Your task to perform on an android device: change keyboard looks Image 0: 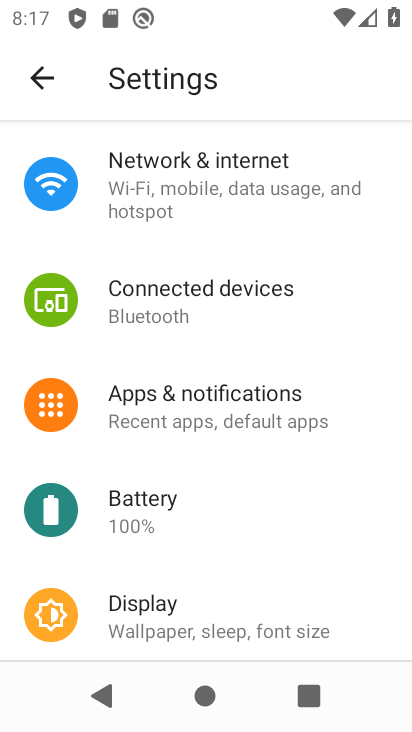
Step 0: drag from (380, 553) to (373, 414)
Your task to perform on an android device: change keyboard looks Image 1: 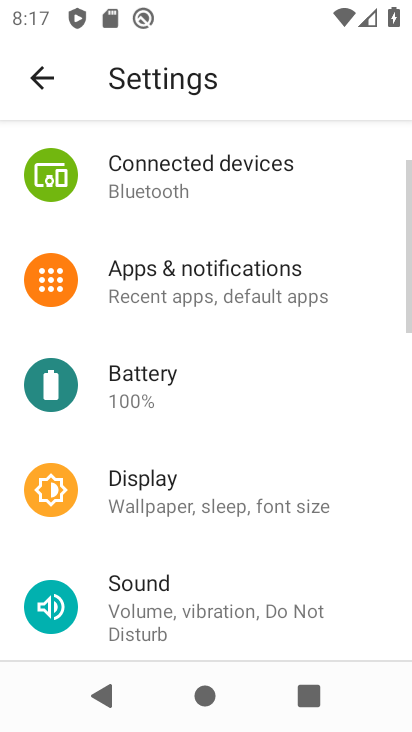
Step 1: drag from (359, 580) to (376, 444)
Your task to perform on an android device: change keyboard looks Image 2: 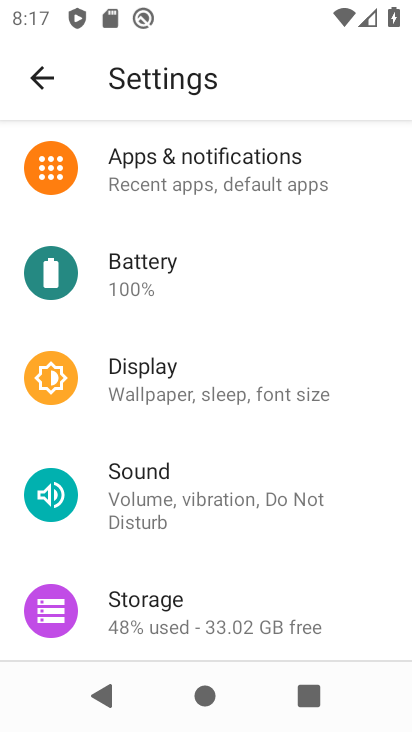
Step 2: drag from (384, 586) to (376, 459)
Your task to perform on an android device: change keyboard looks Image 3: 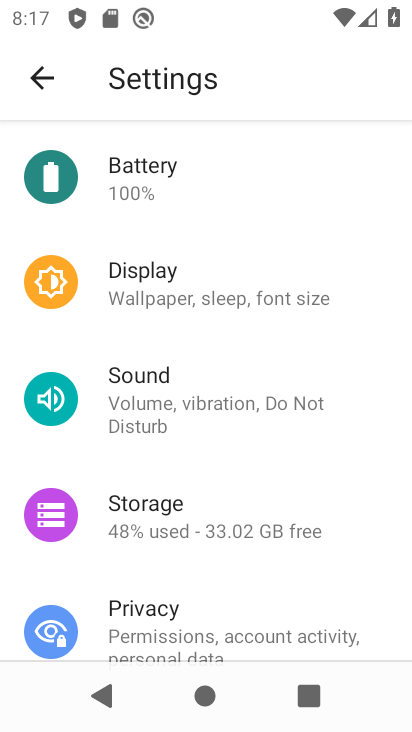
Step 3: drag from (365, 606) to (365, 513)
Your task to perform on an android device: change keyboard looks Image 4: 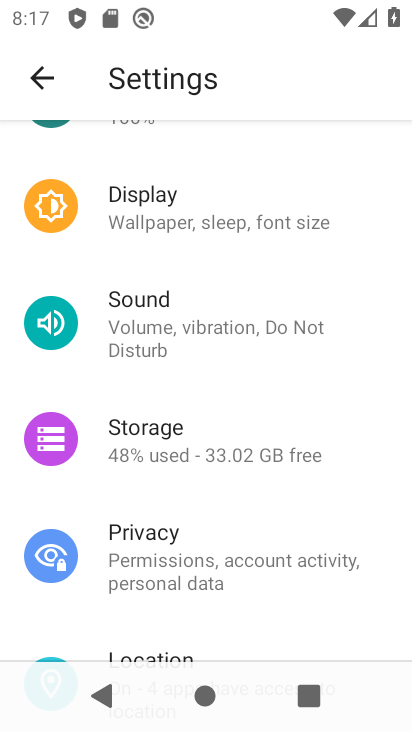
Step 4: drag from (365, 617) to (372, 524)
Your task to perform on an android device: change keyboard looks Image 5: 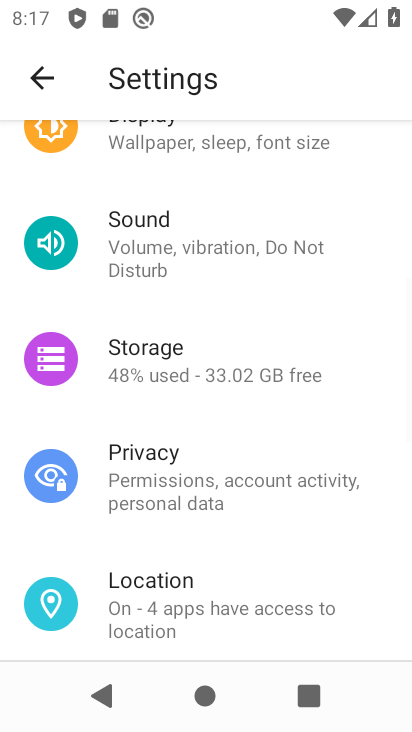
Step 5: drag from (353, 607) to (347, 513)
Your task to perform on an android device: change keyboard looks Image 6: 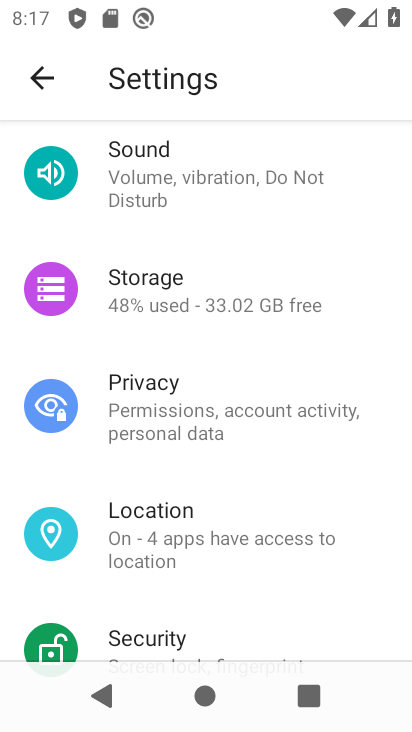
Step 6: drag from (326, 589) to (319, 506)
Your task to perform on an android device: change keyboard looks Image 7: 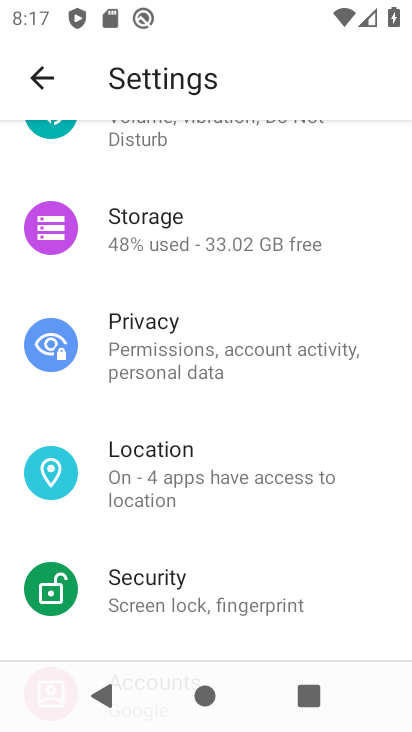
Step 7: drag from (321, 606) to (332, 513)
Your task to perform on an android device: change keyboard looks Image 8: 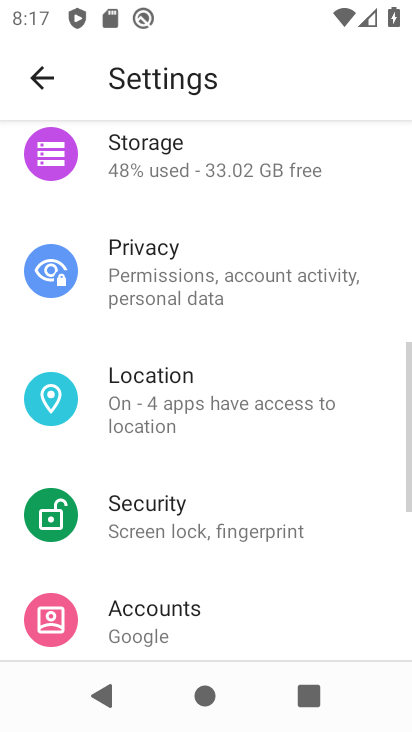
Step 8: drag from (348, 605) to (352, 520)
Your task to perform on an android device: change keyboard looks Image 9: 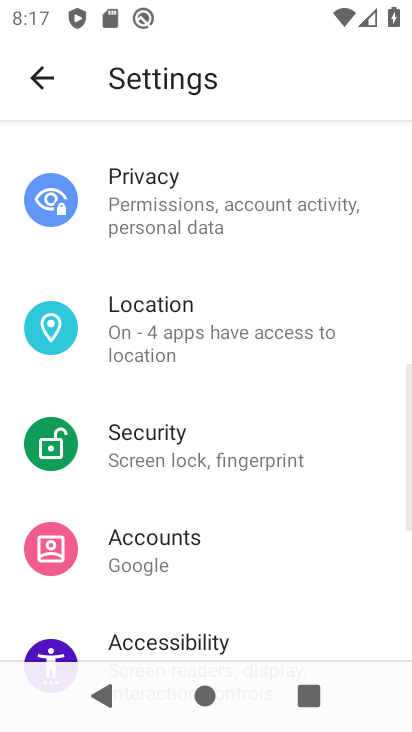
Step 9: drag from (366, 621) to (350, 525)
Your task to perform on an android device: change keyboard looks Image 10: 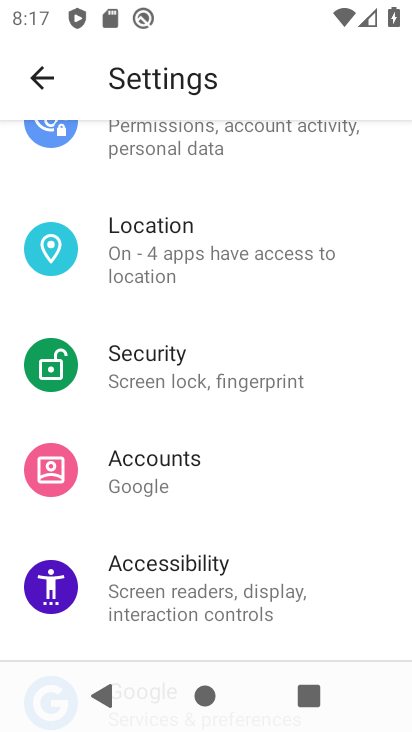
Step 10: drag from (341, 624) to (331, 531)
Your task to perform on an android device: change keyboard looks Image 11: 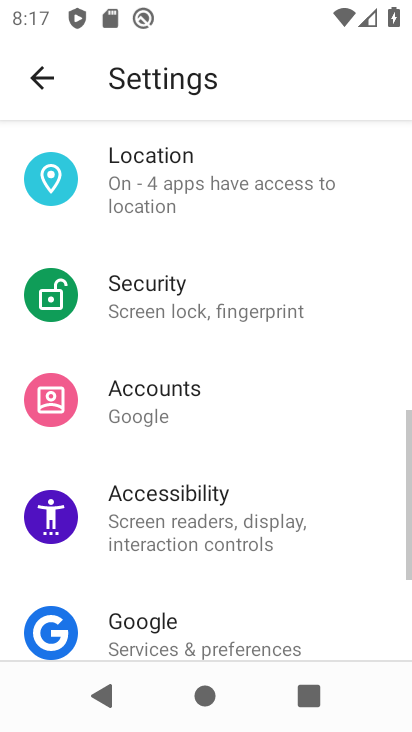
Step 11: drag from (339, 614) to (339, 528)
Your task to perform on an android device: change keyboard looks Image 12: 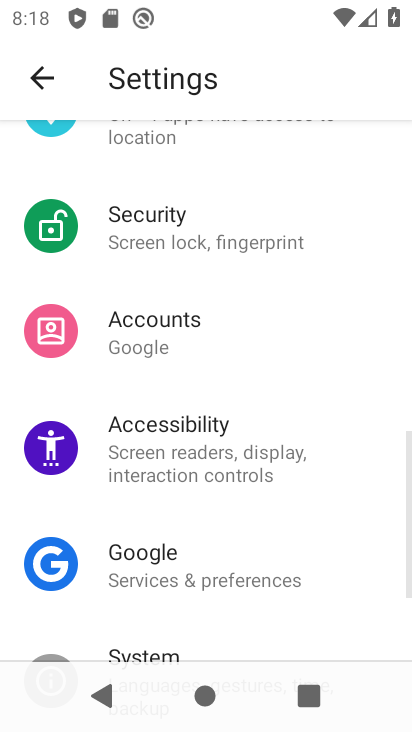
Step 12: drag from (351, 627) to (366, 526)
Your task to perform on an android device: change keyboard looks Image 13: 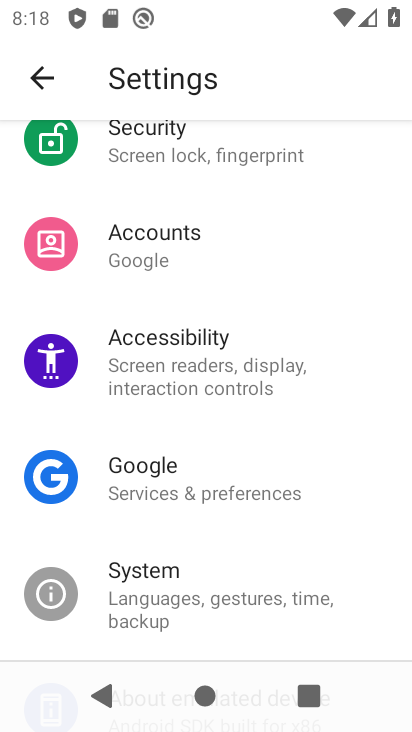
Step 13: drag from (378, 620) to (377, 454)
Your task to perform on an android device: change keyboard looks Image 14: 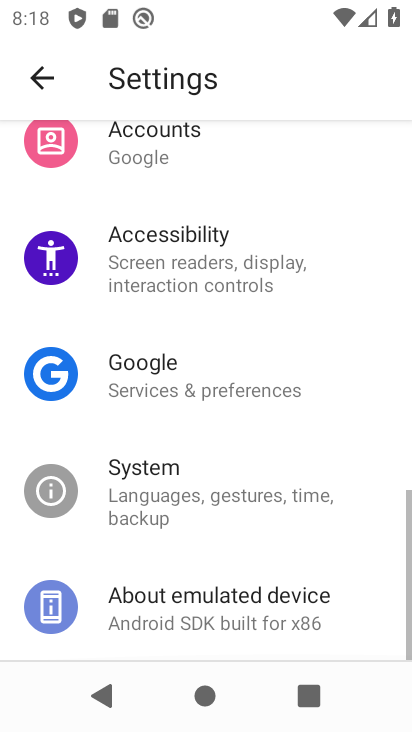
Step 14: click (308, 486)
Your task to perform on an android device: change keyboard looks Image 15: 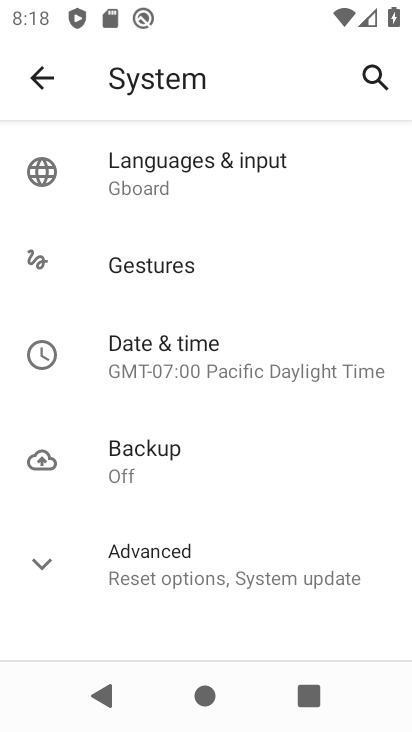
Step 15: click (259, 187)
Your task to perform on an android device: change keyboard looks Image 16: 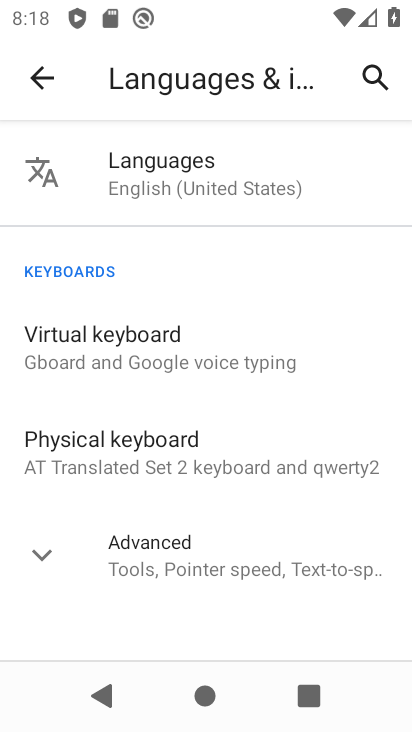
Step 16: click (231, 368)
Your task to perform on an android device: change keyboard looks Image 17: 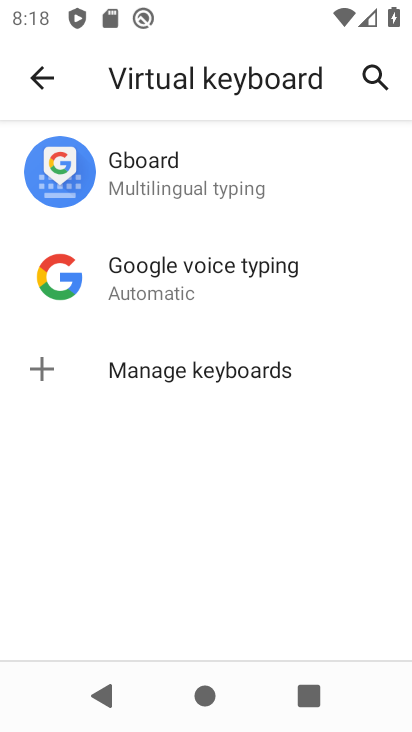
Step 17: click (210, 195)
Your task to perform on an android device: change keyboard looks Image 18: 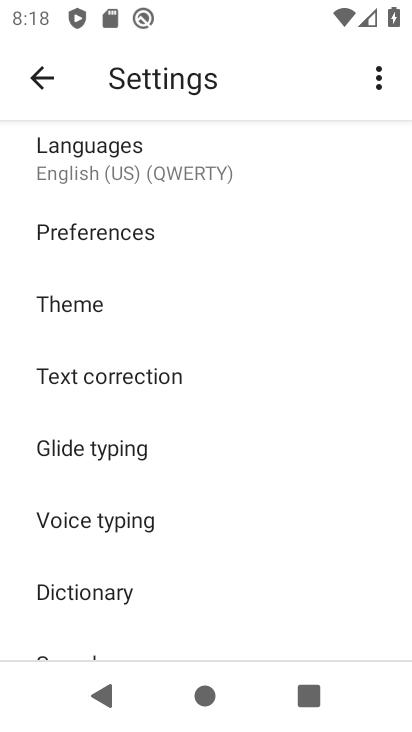
Step 18: click (219, 315)
Your task to perform on an android device: change keyboard looks Image 19: 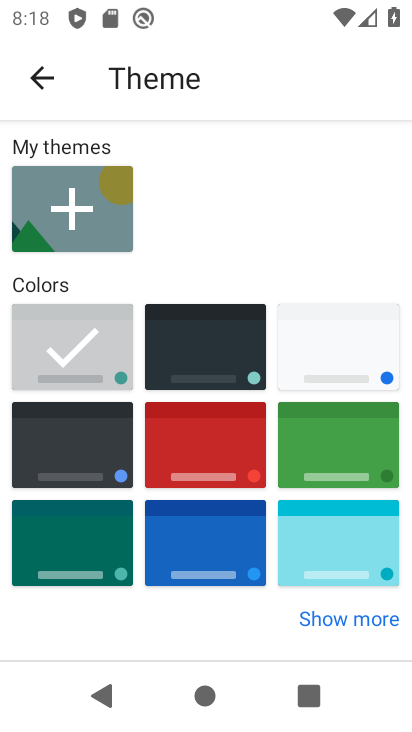
Step 19: click (237, 346)
Your task to perform on an android device: change keyboard looks Image 20: 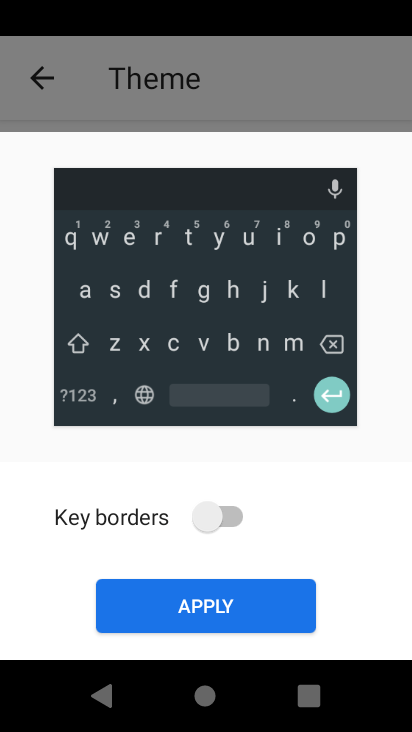
Step 20: click (281, 608)
Your task to perform on an android device: change keyboard looks Image 21: 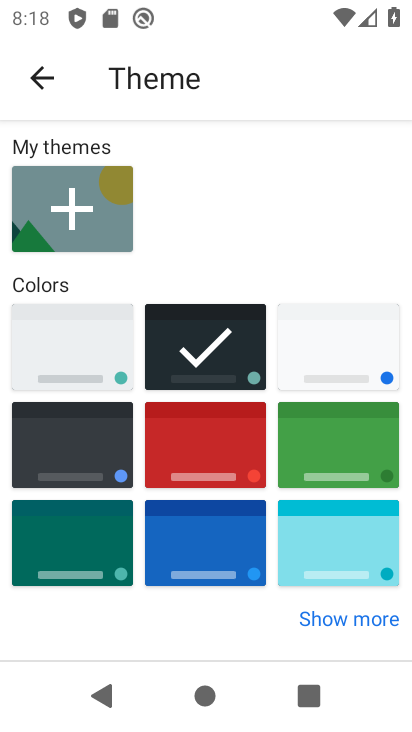
Step 21: task complete